Your task to perform on an android device: change the upload size in google photos Image 0: 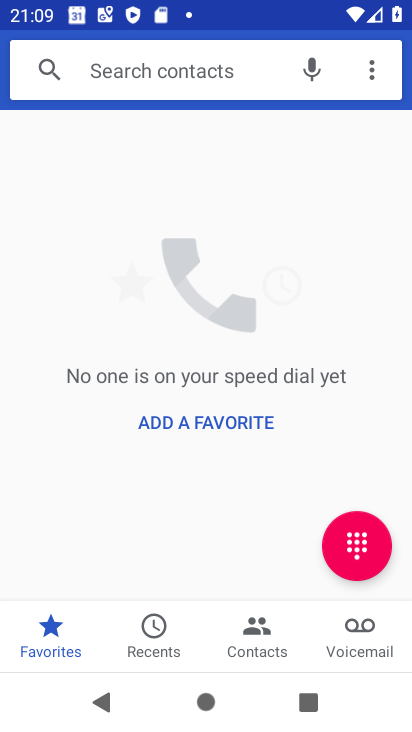
Step 0: press home button
Your task to perform on an android device: change the upload size in google photos Image 1: 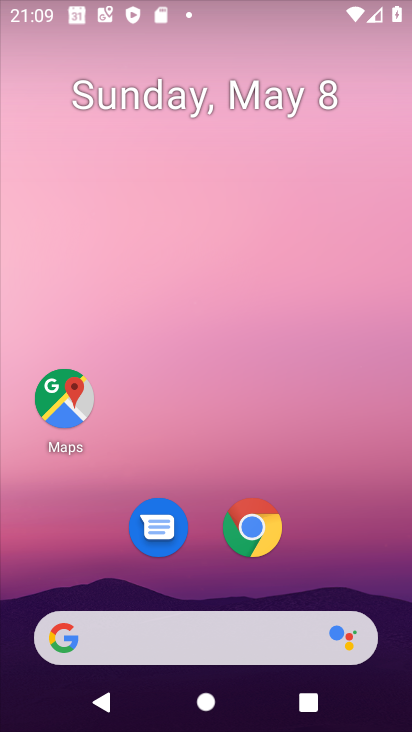
Step 1: drag from (198, 524) to (209, 62)
Your task to perform on an android device: change the upload size in google photos Image 2: 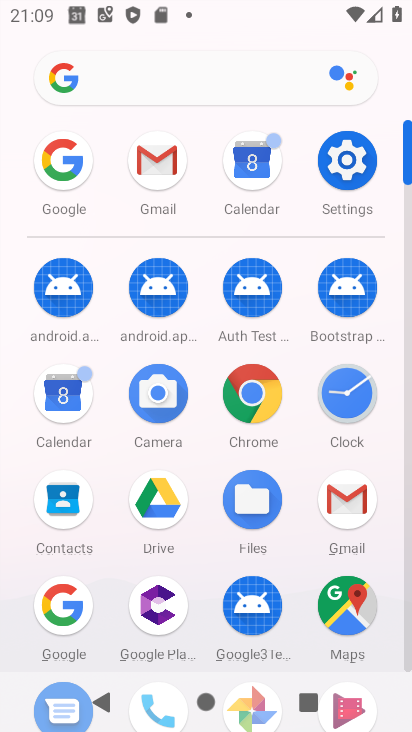
Step 2: drag from (202, 638) to (200, 202)
Your task to perform on an android device: change the upload size in google photos Image 3: 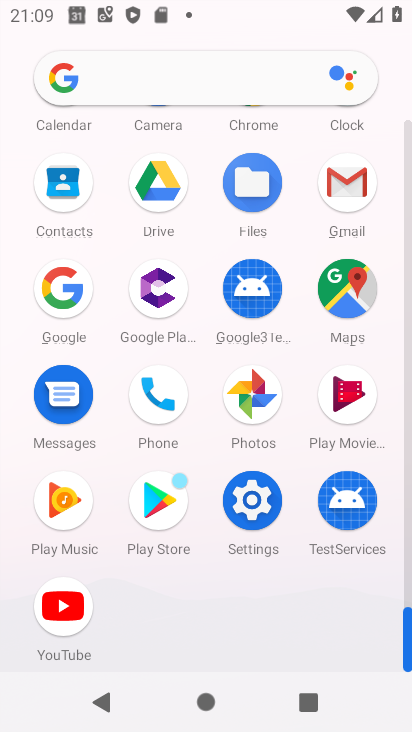
Step 3: click (251, 393)
Your task to perform on an android device: change the upload size in google photos Image 4: 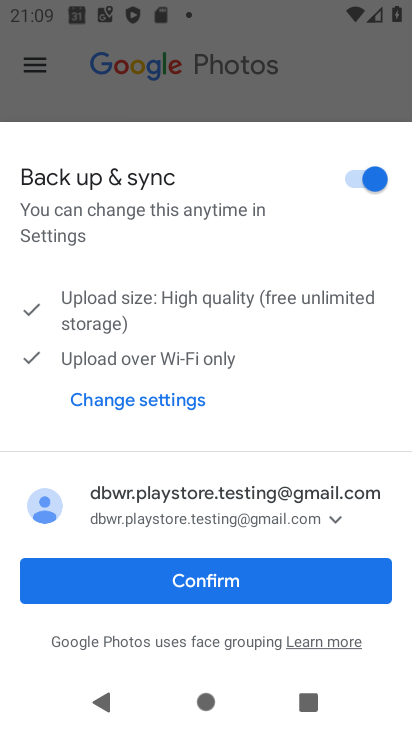
Step 4: click (218, 580)
Your task to perform on an android device: change the upload size in google photos Image 5: 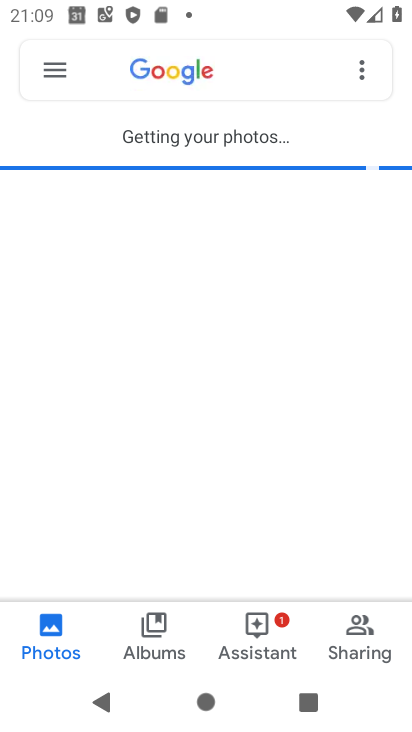
Step 5: click (50, 66)
Your task to perform on an android device: change the upload size in google photos Image 6: 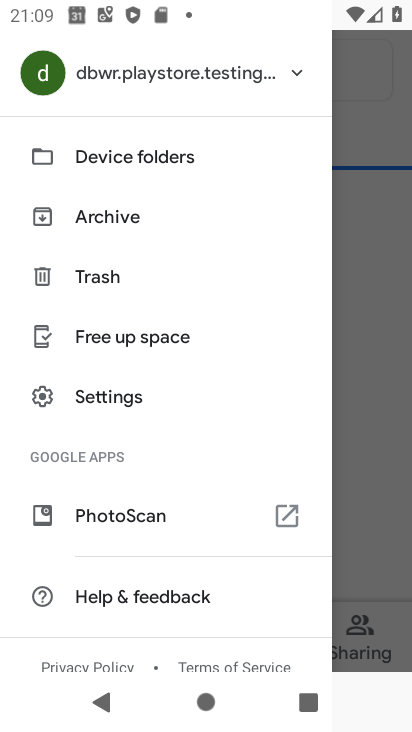
Step 6: drag from (151, 599) to (151, 321)
Your task to perform on an android device: change the upload size in google photos Image 7: 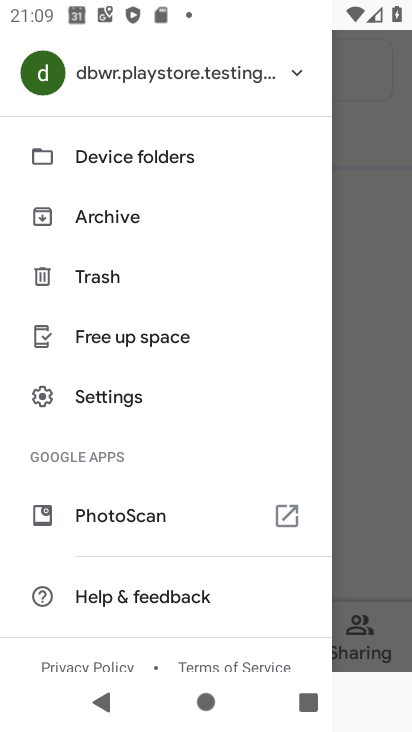
Step 7: click (117, 393)
Your task to perform on an android device: change the upload size in google photos Image 8: 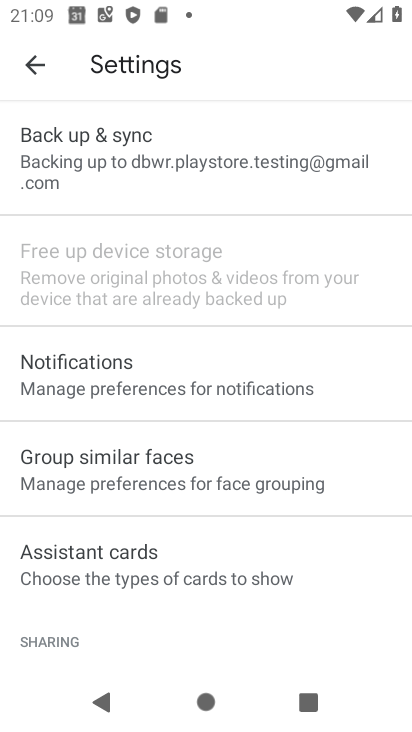
Step 8: click (135, 153)
Your task to perform on an android device: change the upload size in google photos Image 9: 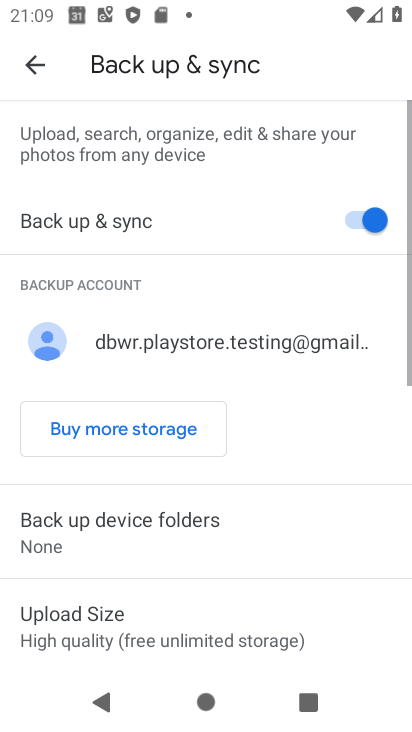
Step 9: click (152, 624)
Your task to perform on an android device: change the upload size in google photos Image 10: 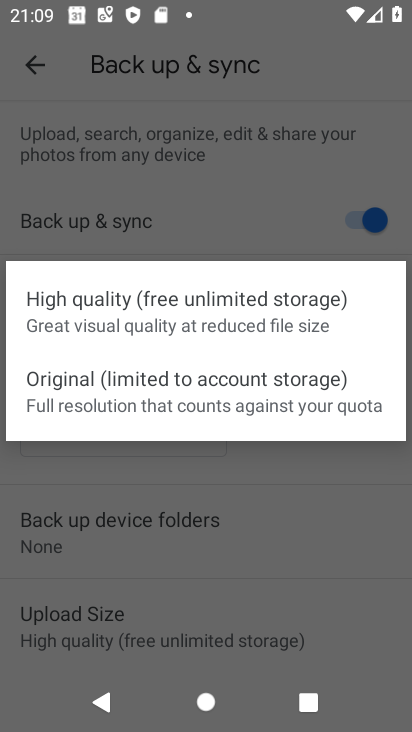
Step 10: click (143, 392)
Your task to perform on an android device: change the upload size in google photos Image 11: 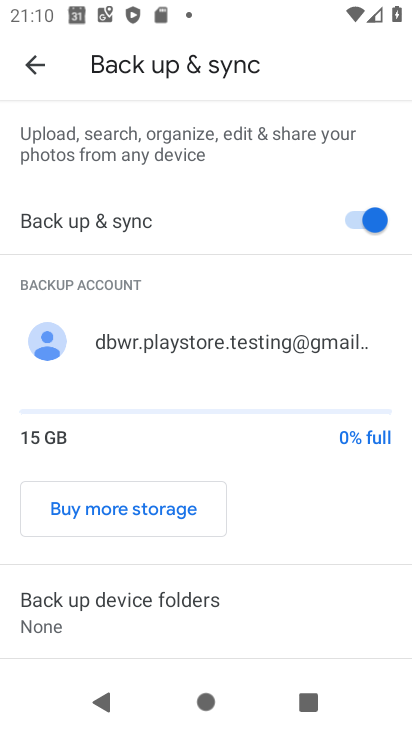
Step 11: task complete